Your task to perform on an android device: Is it going to rain today? Image 0: 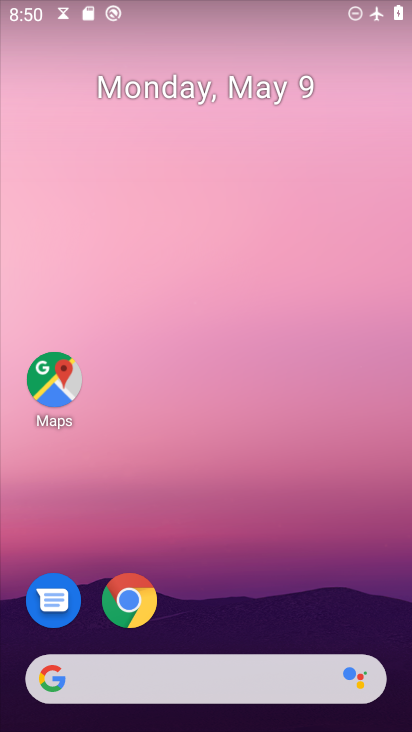
Step 0: drag from (197, 500) to (215, 25)
Your task to perform on an android device: Is it going to rain today? Image 1: 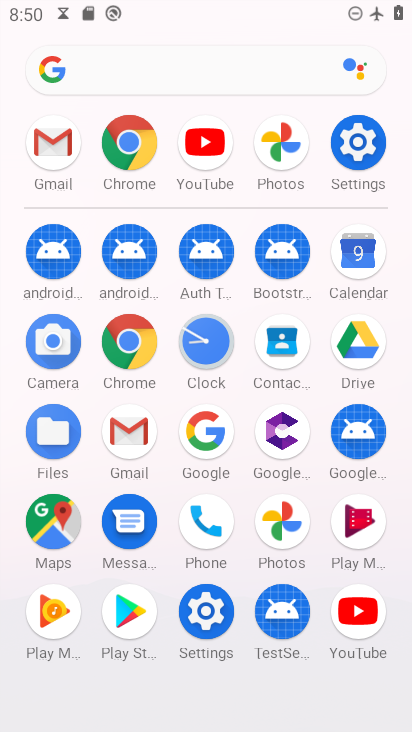
Step 1: drag from (13, 577) to (25, 230)
Your task to perform on an android device: Is it going to rain today? Image 2: 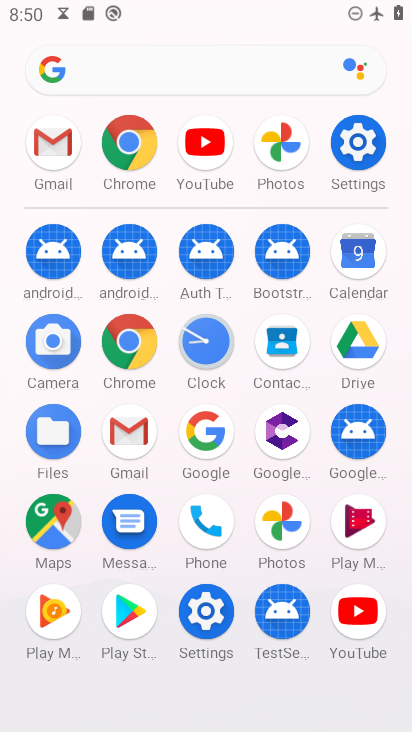
Step 2: click (134, 335)
Your task to perform on an android device: Is it going to rain today? Image 3: 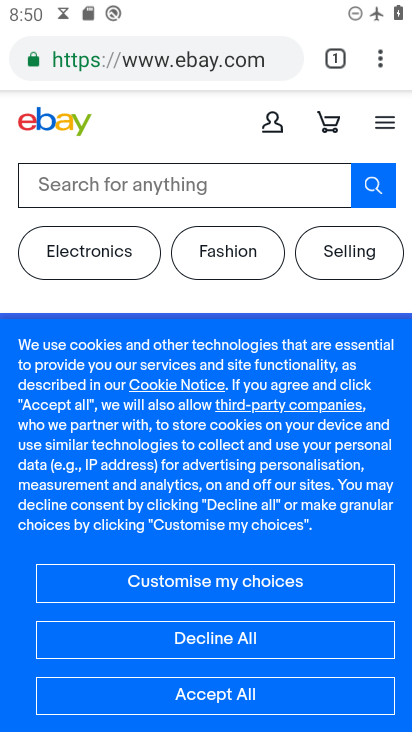
Step 3: click (214, 57)
Your task to perform on an android device: Is it going to rain today? Image 4: 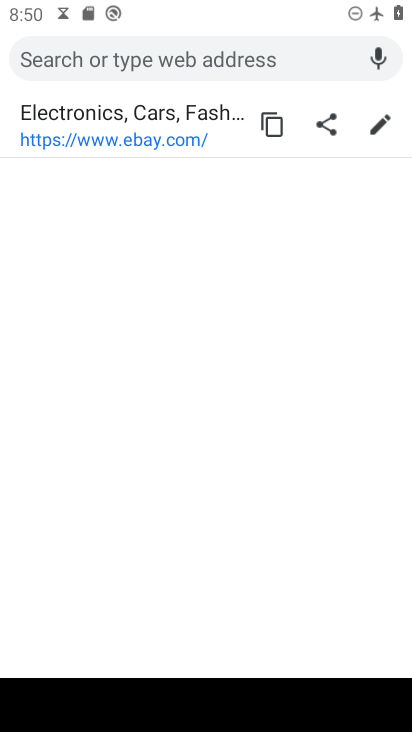
Step 4: type "Is it going to rain today?"
Your task to perform on an android device: Is it going to rain today? Image 5: 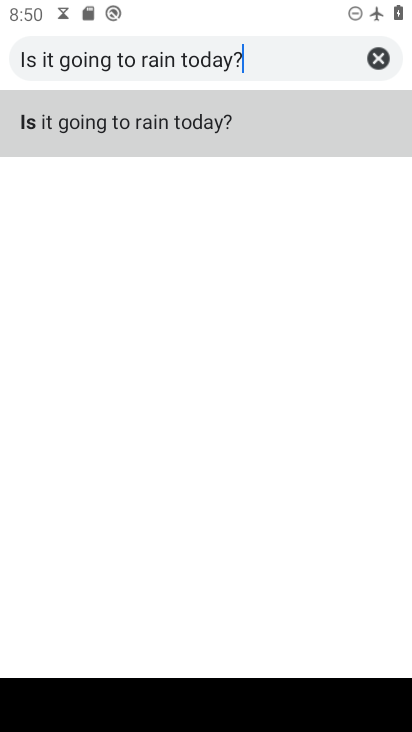
Step 5: type ""
Your task to perform on an android device: Is it going to rain today? Image 6: 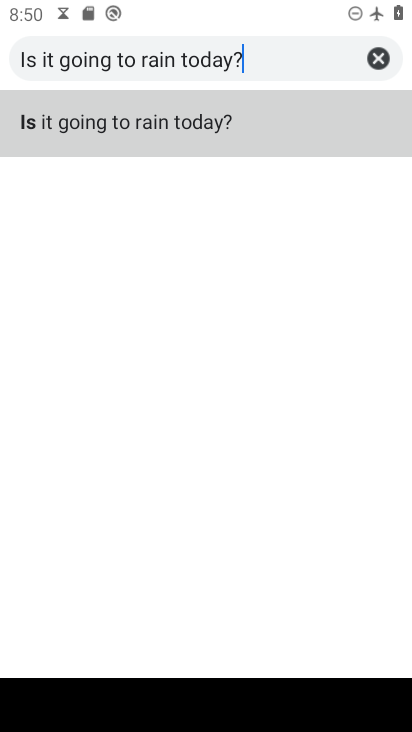
Step 6: click (226, 123)
Your task to perform on an android device: Is it going to rain today? Image 7: 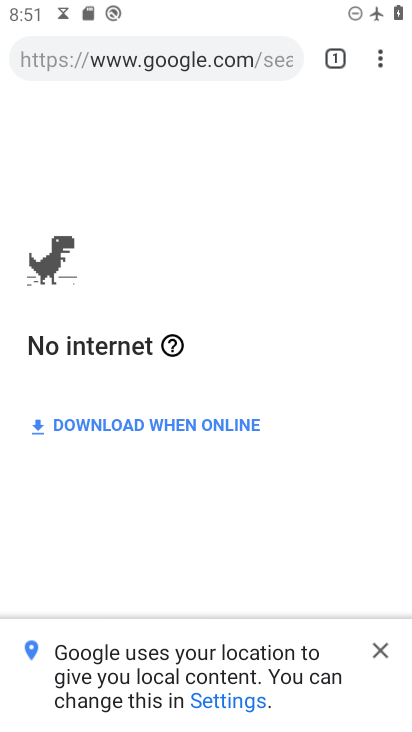
Step 7: task complete